Your task to perform on an android device: open app "ColorNote Notepad Notes" Image 0: 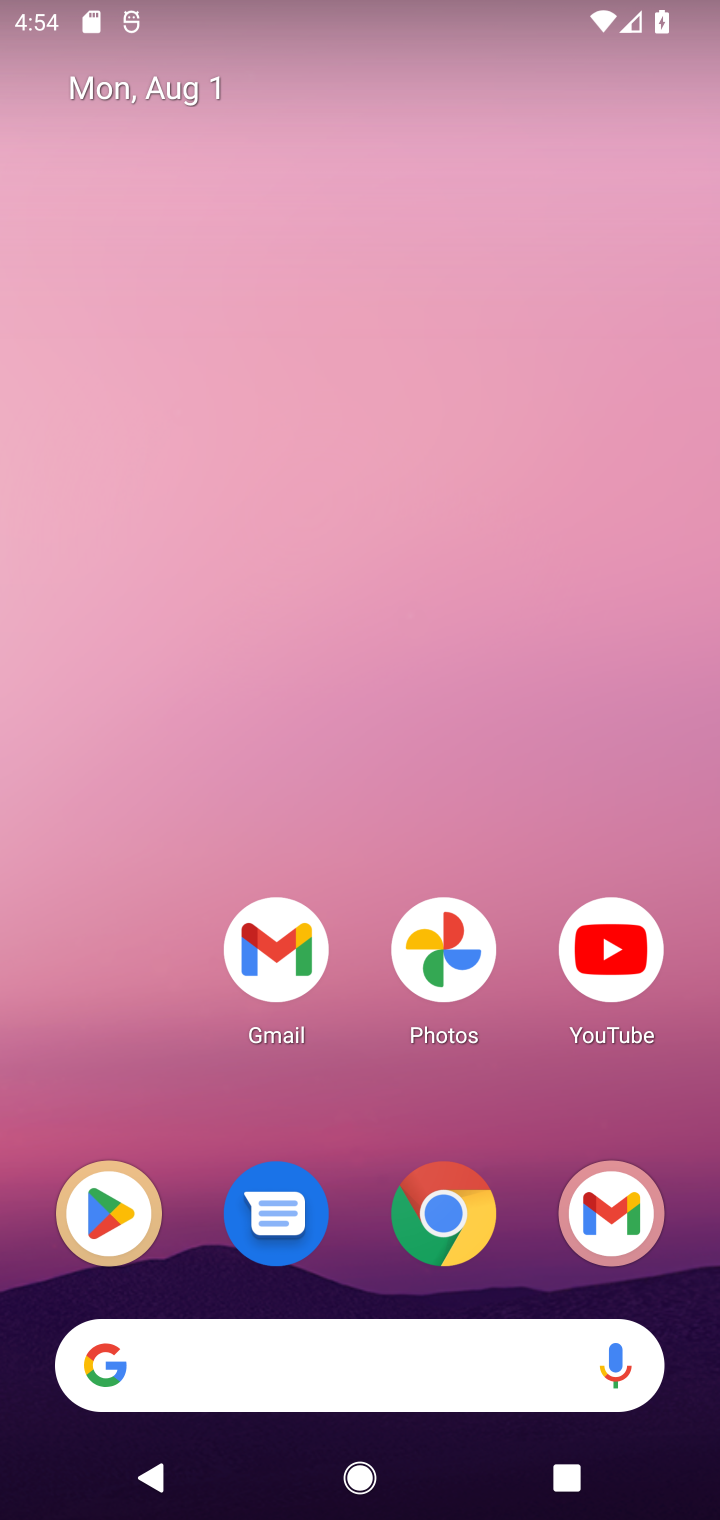
Step 0: drag from (518, 995) to (468, 63)
Your task to perform on an android device: open app "ColorNote Notepad Notes" Image 1: 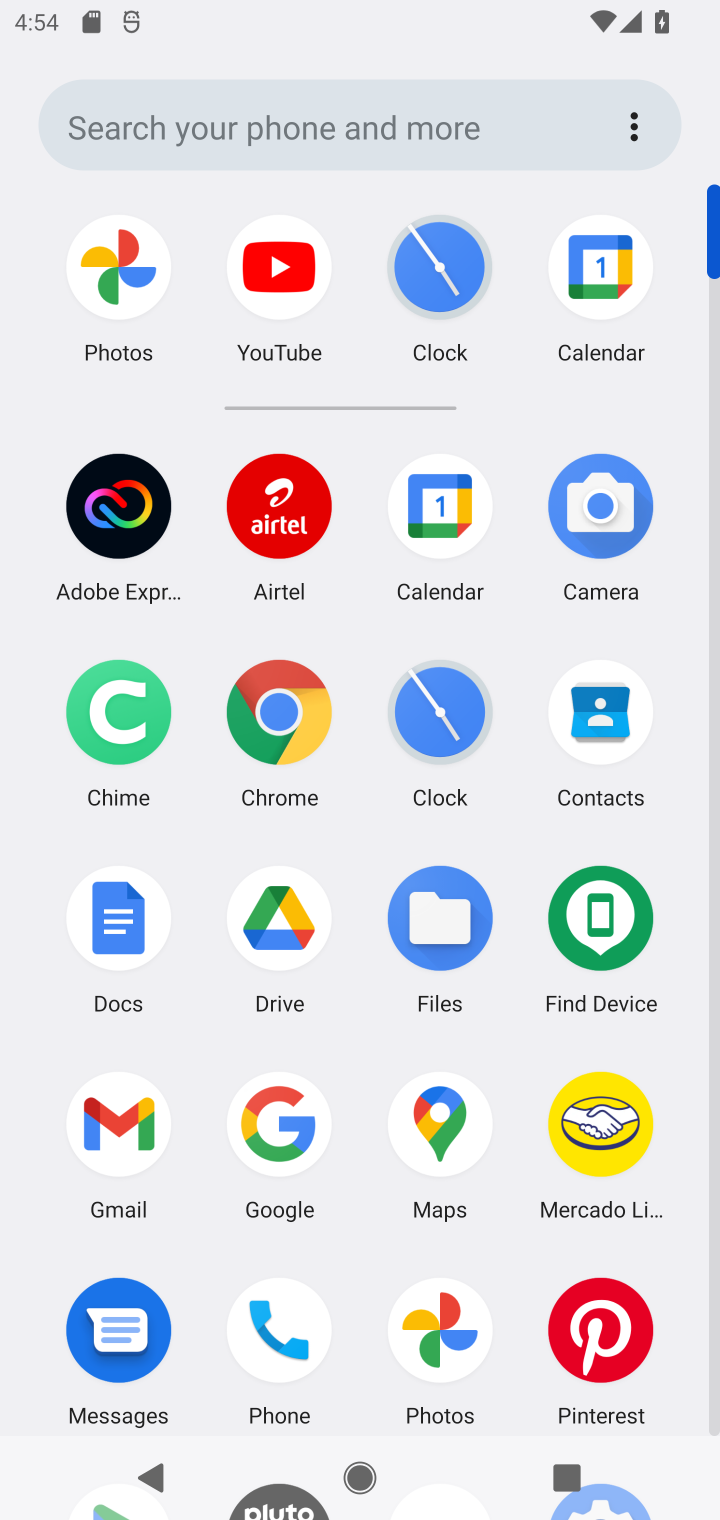
Step 1: drag from (346, 1200) to (337, 347)
Your task to perform on an android device: open app "ColorNote Notepad Notes" Image 2: 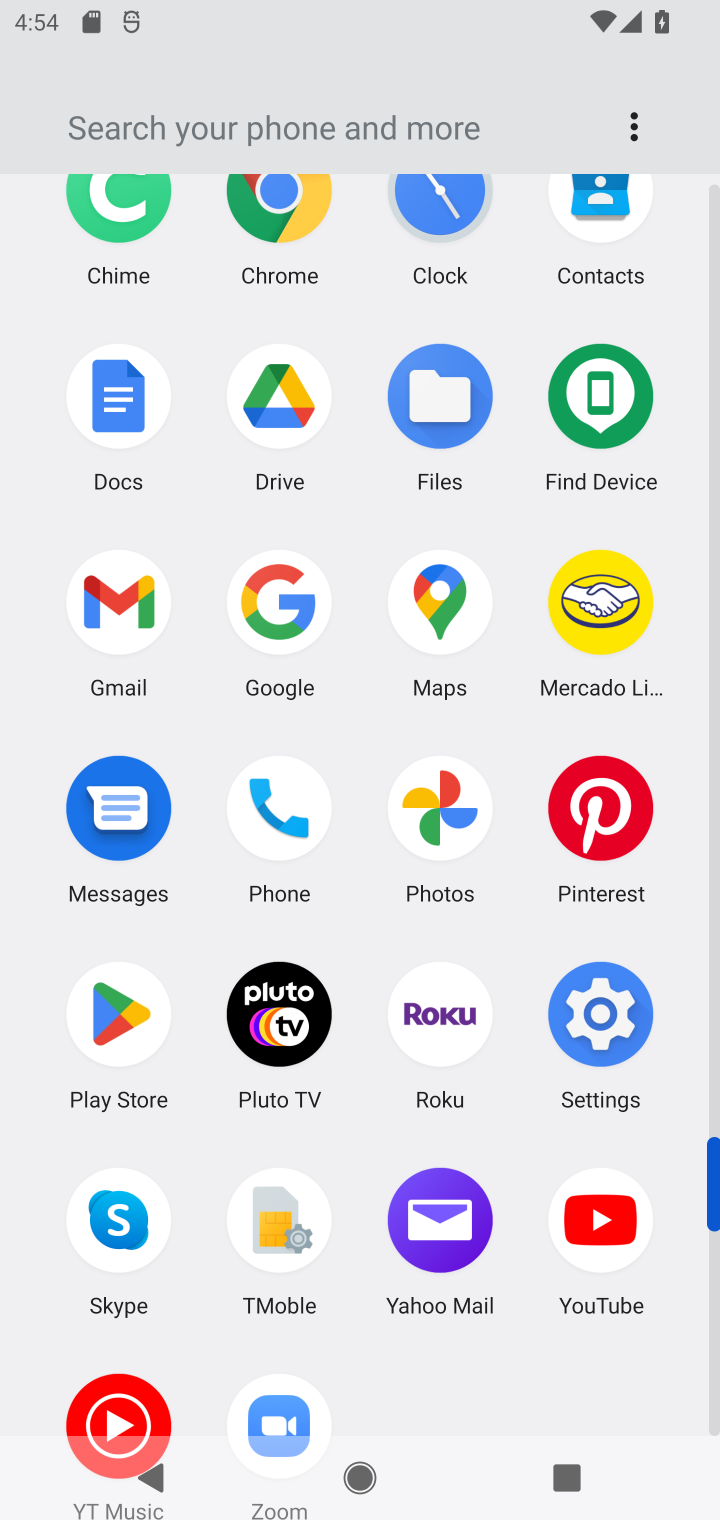
Step 2: click (105, 1016)
Your task to perform on an android device: open app "ColorNote Notepad Notes" Image 3: 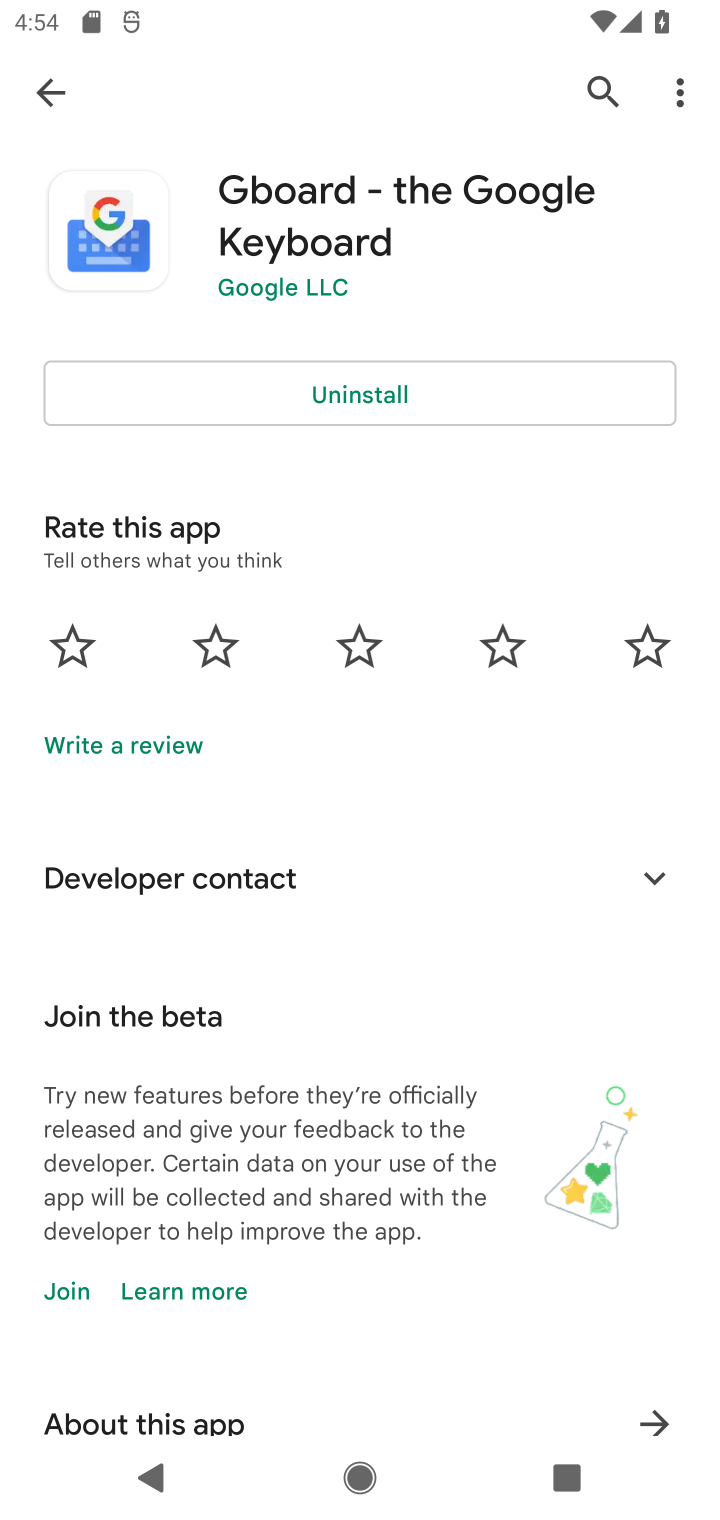
Step 3: click (600, 81)
Your task to perform on an android device: open app "ColorNote Notepad Notes" Image 4: 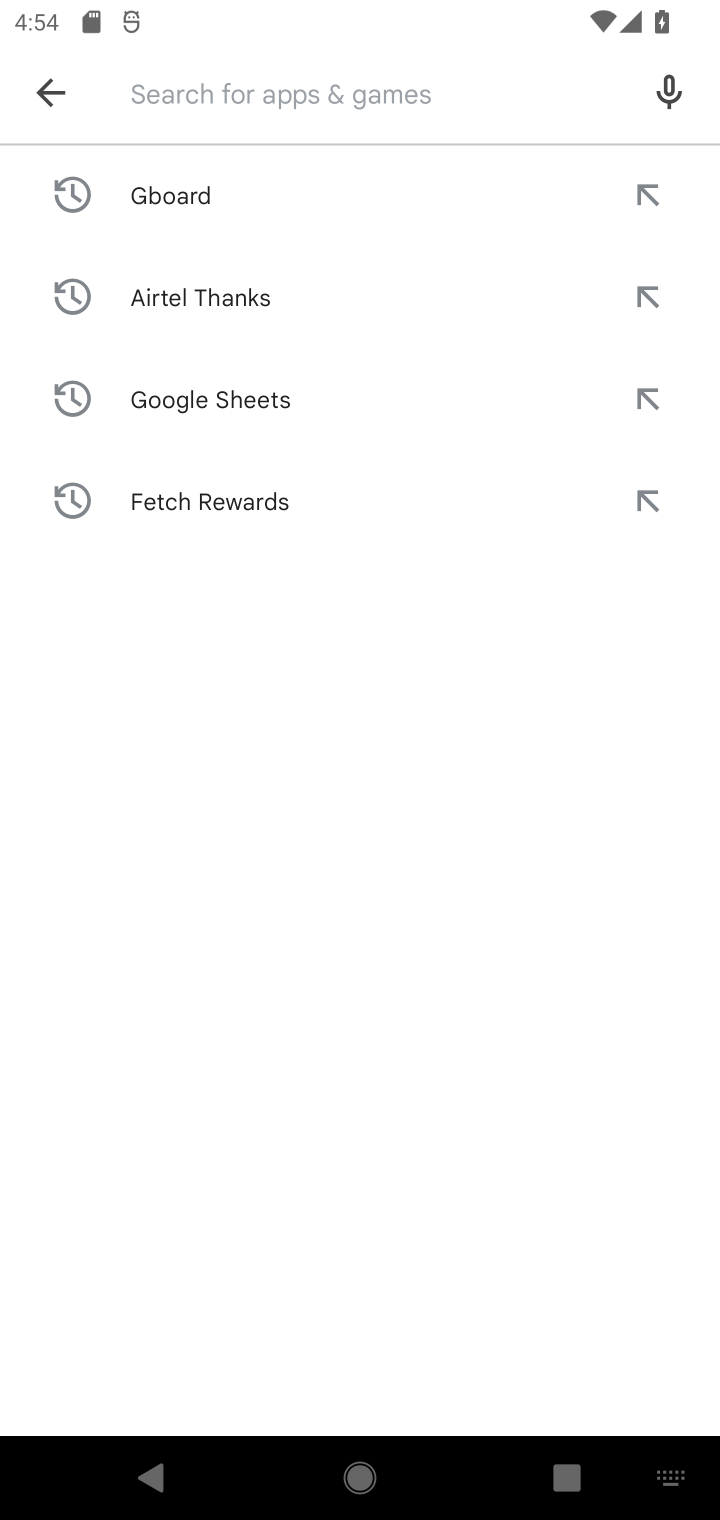
Step 4: type "ColorNote Notepad Note"
Your task to perform on an android device: open app "ColorNote Notepad Notes" Image 5: 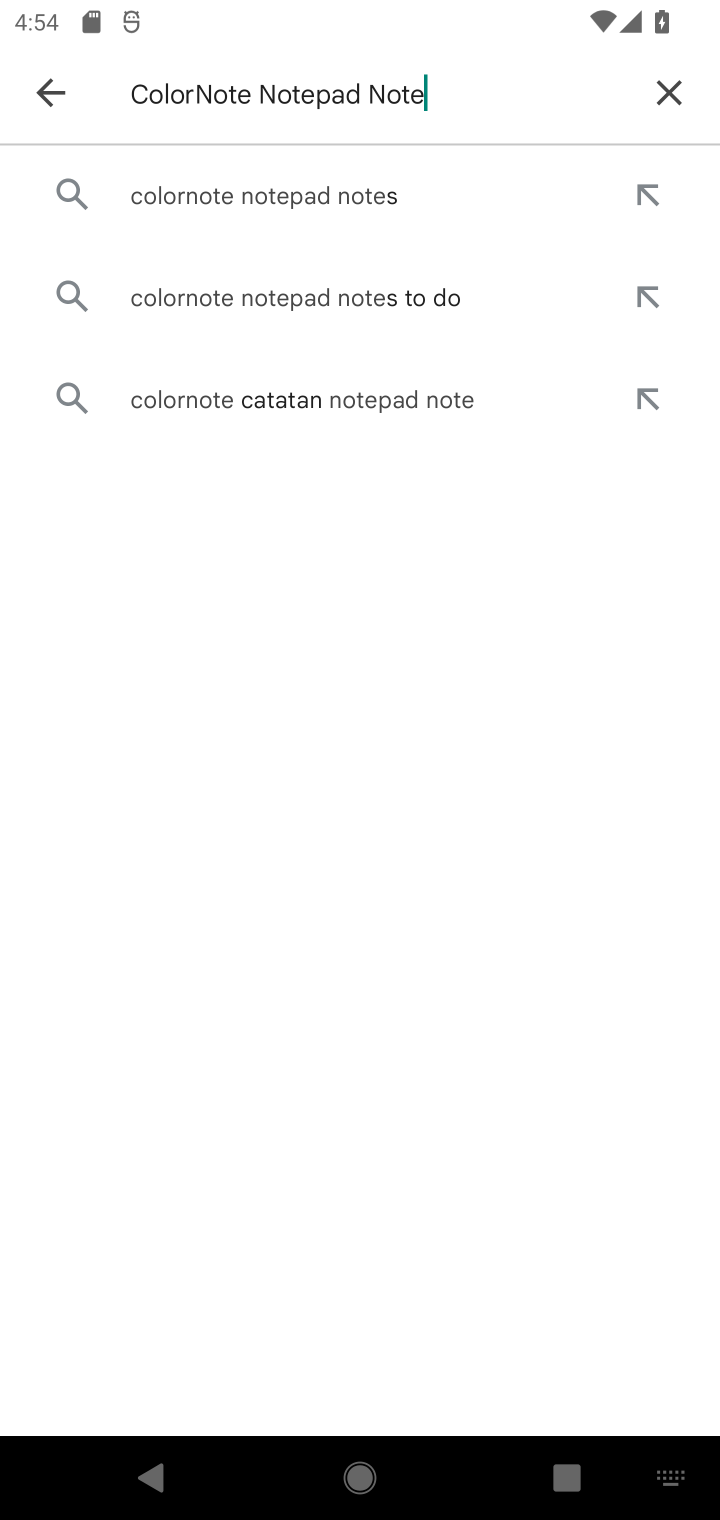
Step 5: press enter
Your task to perform on an android device: open app "ColorNote Notepad Notes" Image 6: 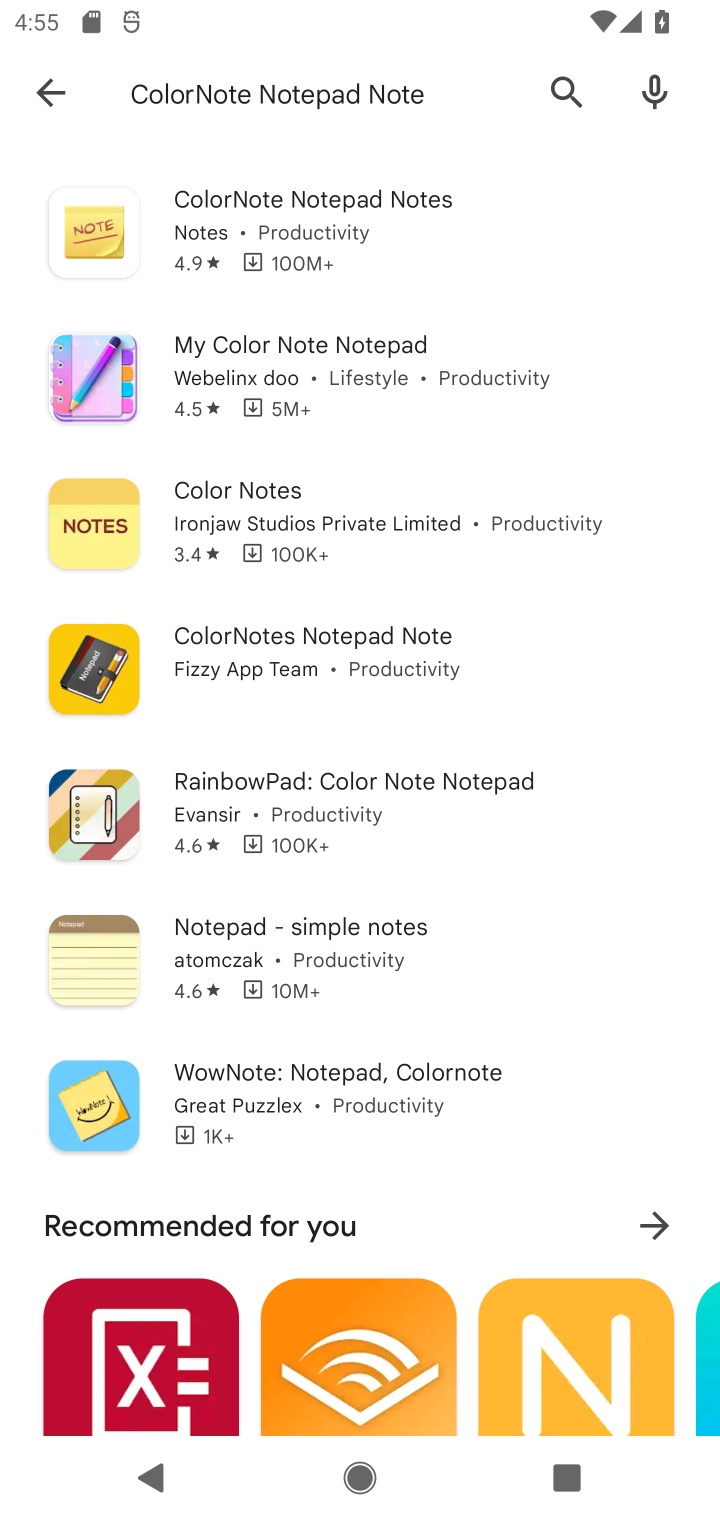
Step 6: click (393, 229)
Your task to perform on an android device: open app "ColorNote Notepad Notes" Image 7: 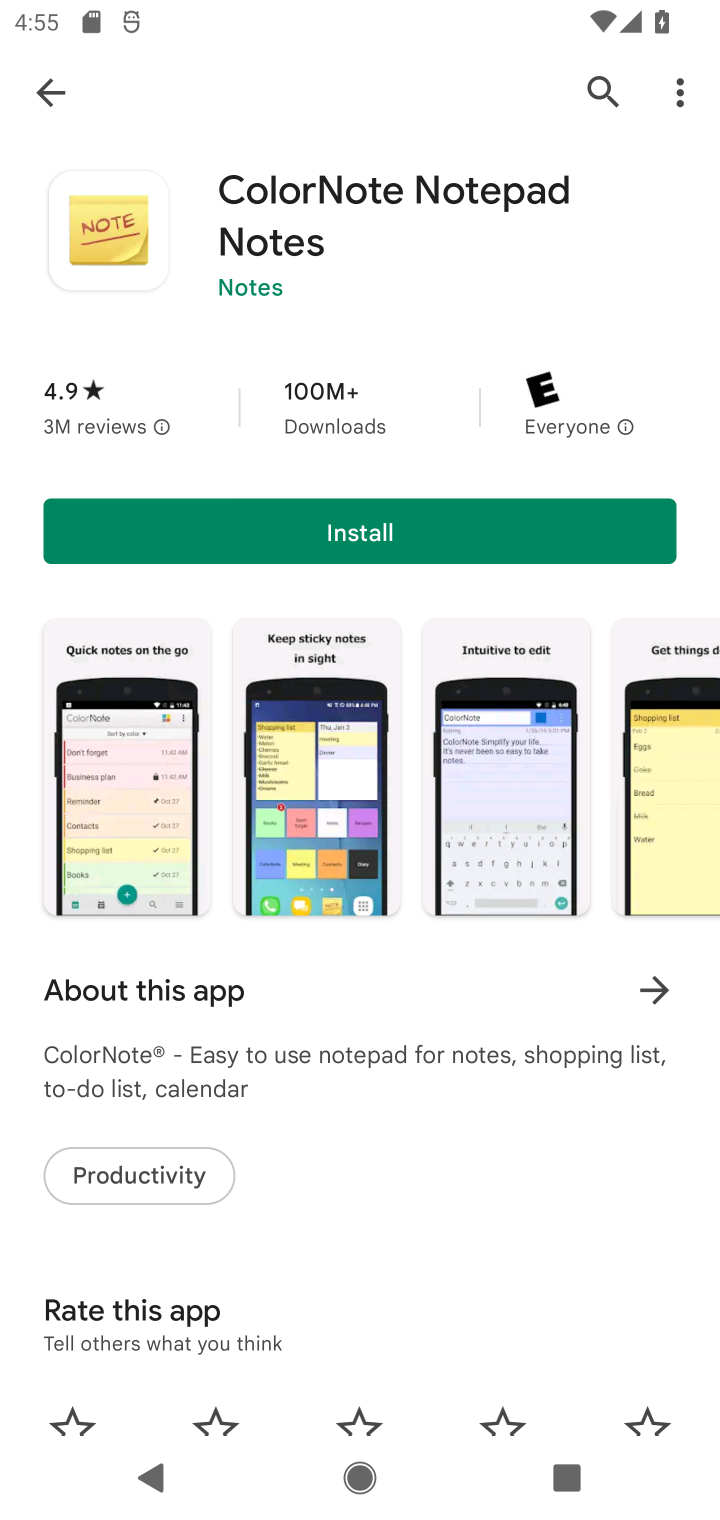
Step 7: click (595, 558)
Your task to perform on an android device: open app "ColorNote Notepad Notes" Image 8: 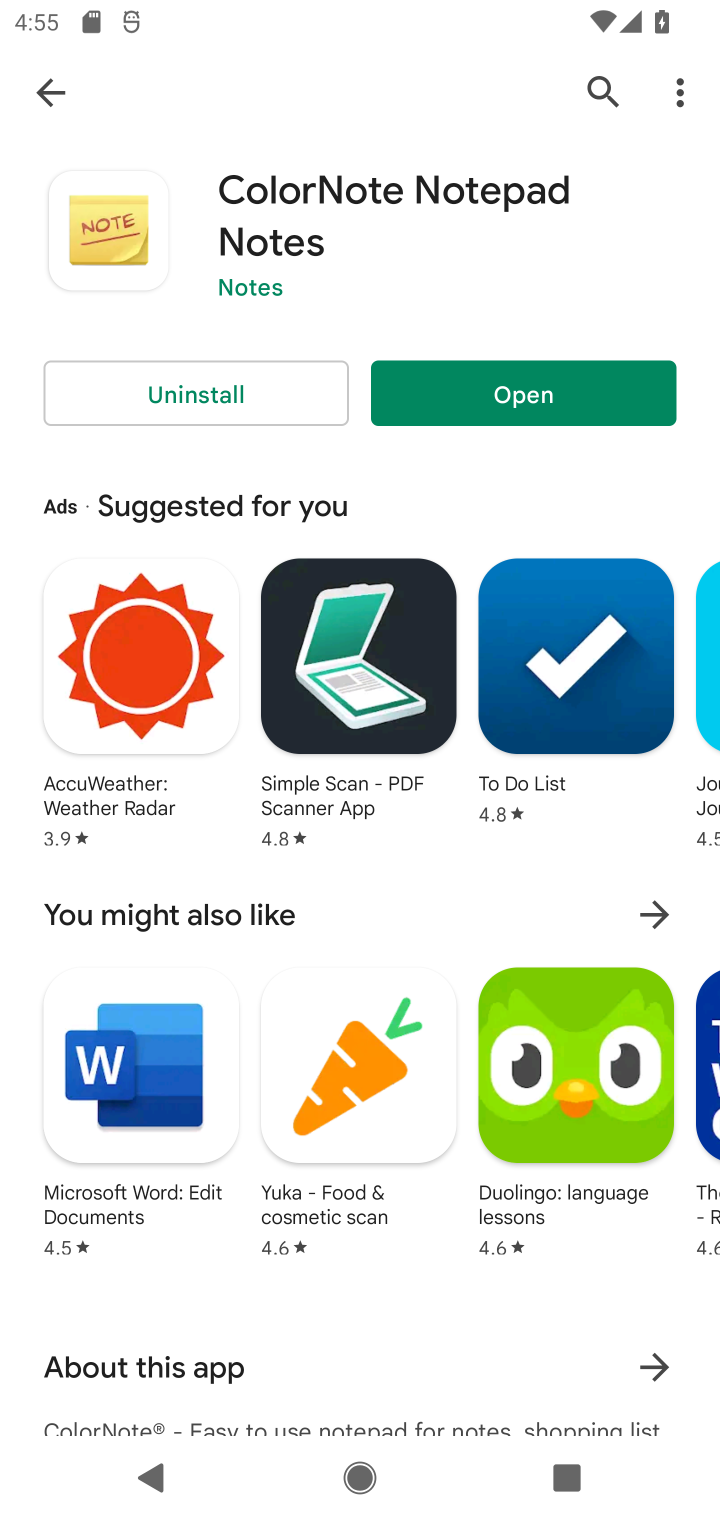
Step 8: click (564, 388)
Your task to perform on an android device: open app "ColorNote Notepad Notes" Image 9: 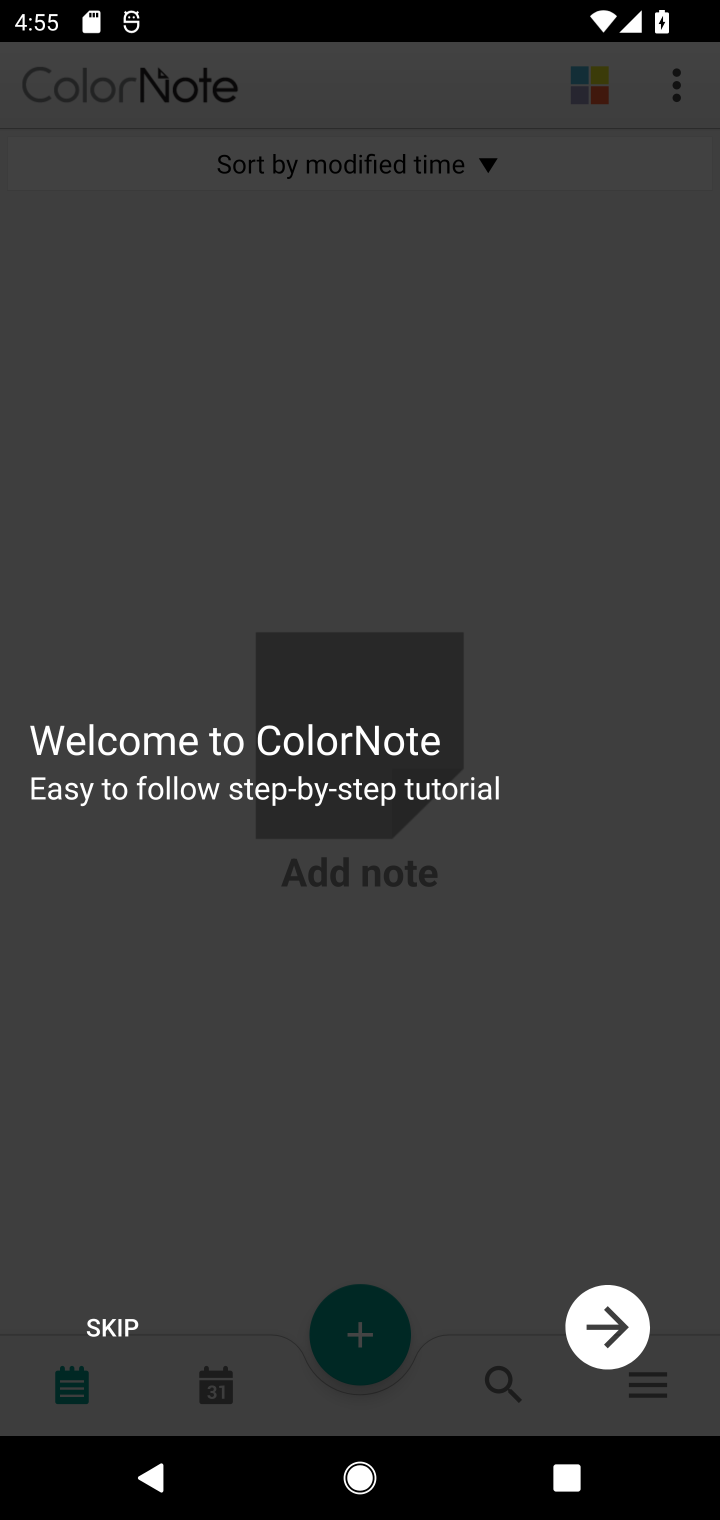
Step 9: click (419, 442)
Your task to perform on an android device: open app "ColorNote Notepad Notes" Image 10: 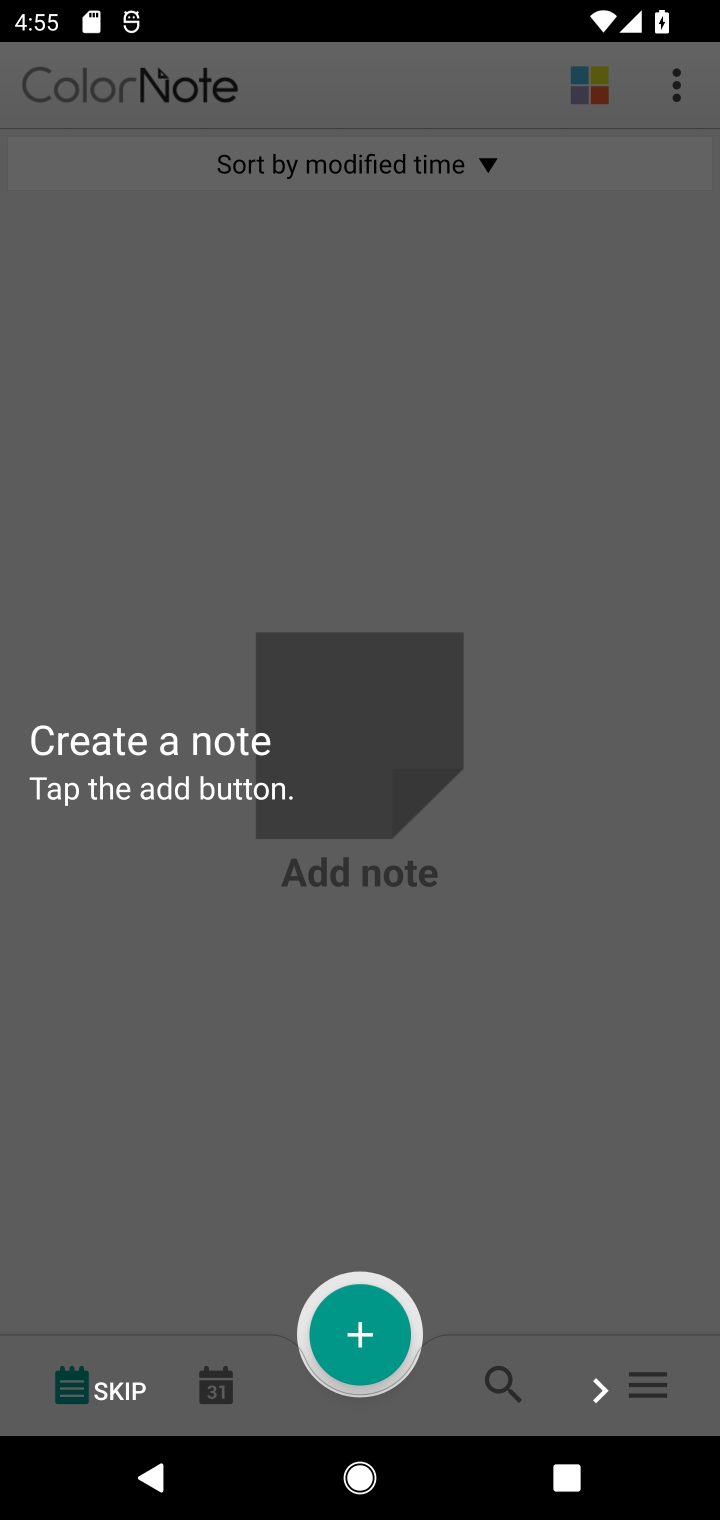
Step 10: click (431, 510)
Your task to perform on an android device: open app "ColorNote Notepad Notes" Image 11: 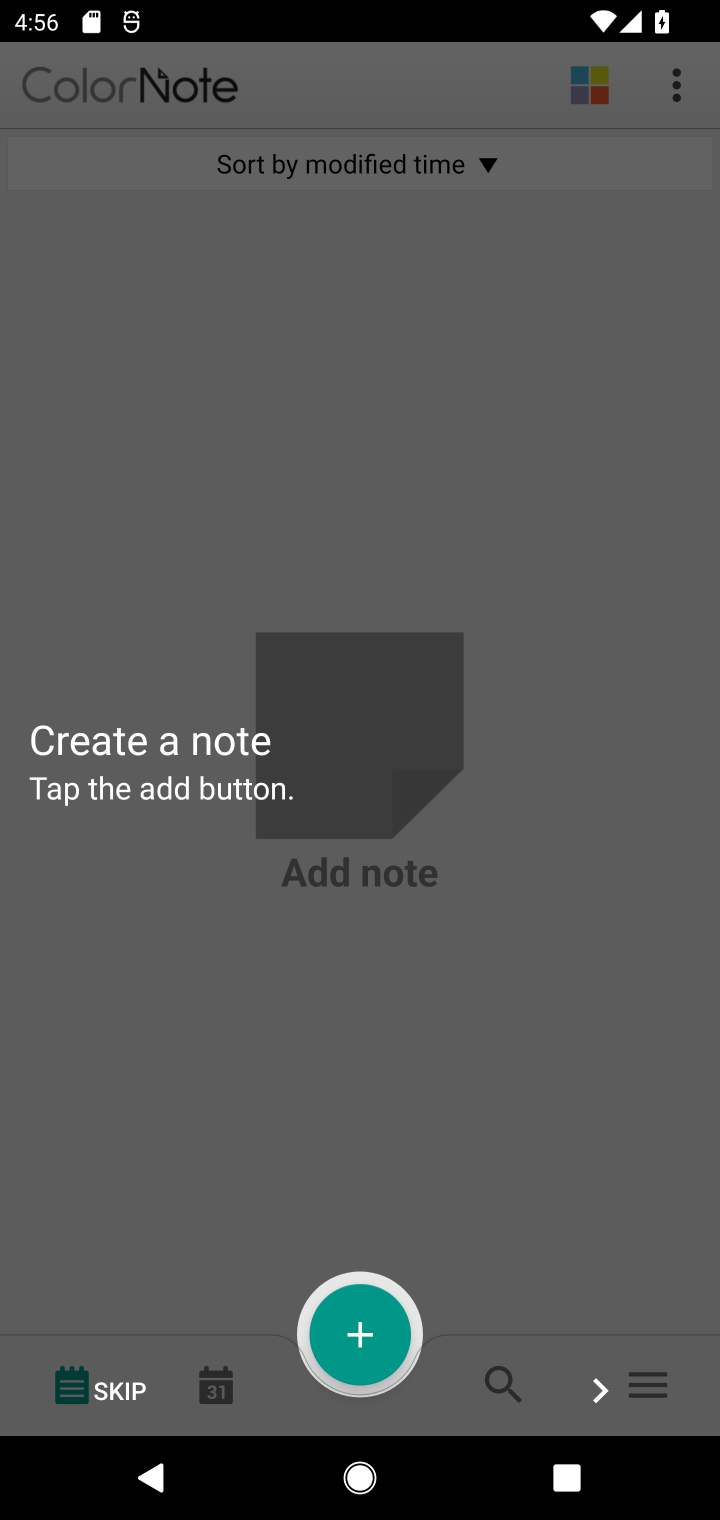
Step 11: task complete